Your task to perform on an android device: change keyboard looks Image 0: 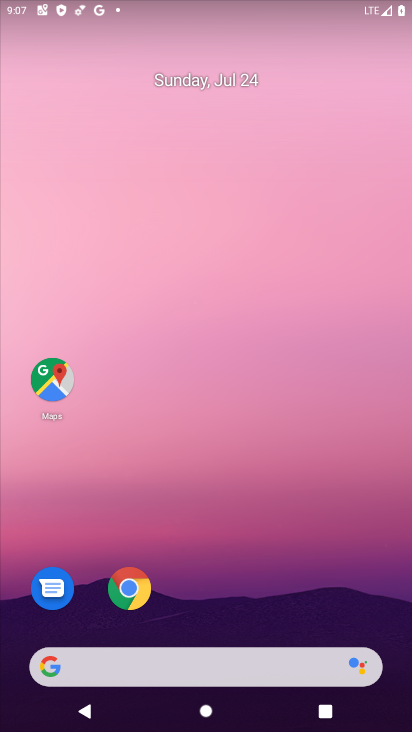
Step 0: drag from (197, 655) to (199, 43)
Your task to perform on an android device: change keyboard looks Image 1: 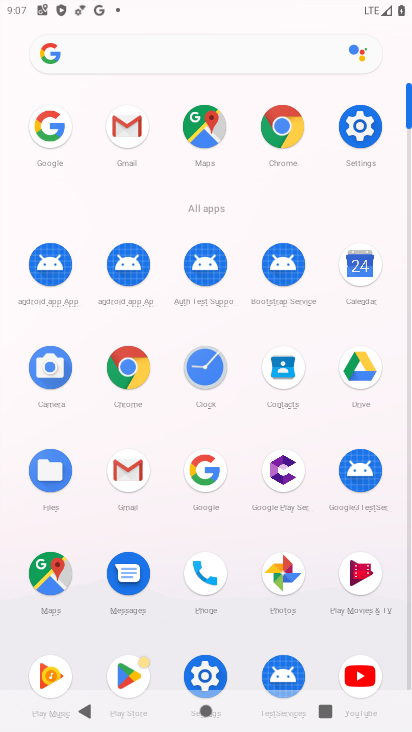
Step 1: click (367, 136)
Your task to perform on an android device: change keyboard looks Image 2: 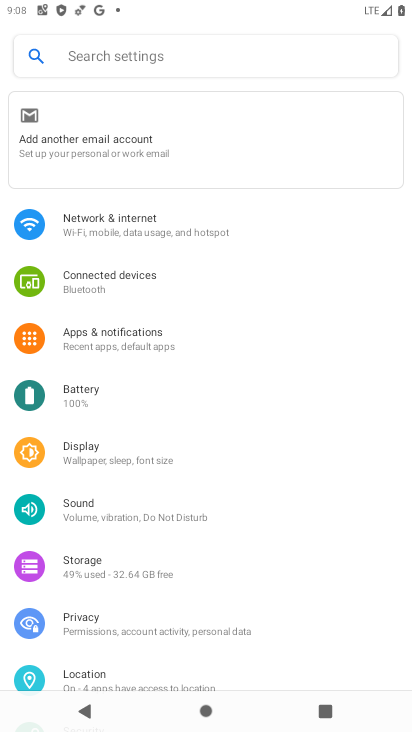
Step 2: drag from (125, 641) to (178, 135)
Your task to perform on an android device: change keyboard looks Image 3: 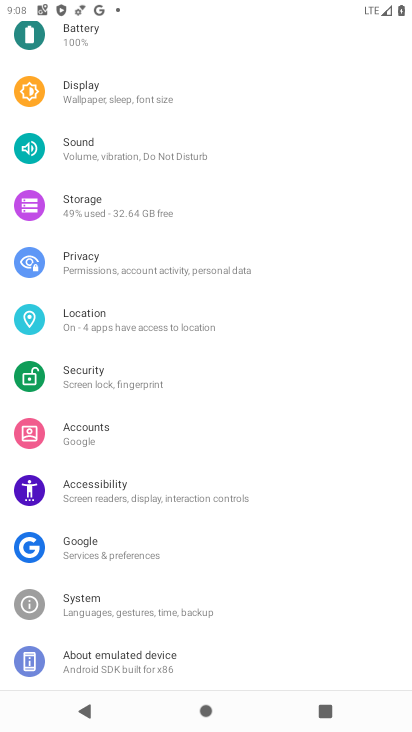
Step 3: click (81, 607)
Your task to perform on an android device: change keyboard looks Image 4: 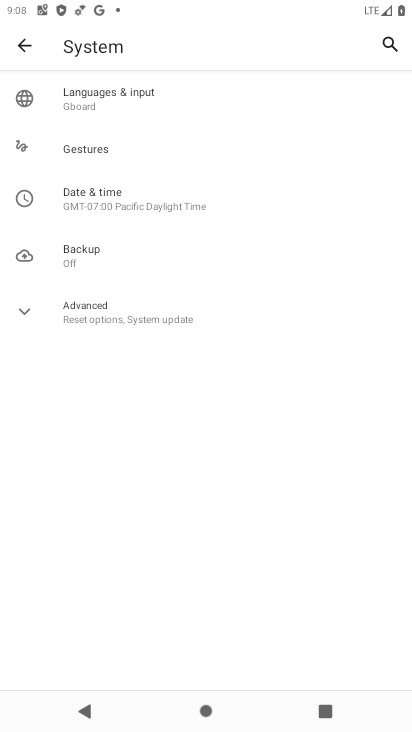
Step 4: click (70, 107)
Your task to perform on an android device: change keyboard looks Image 5: 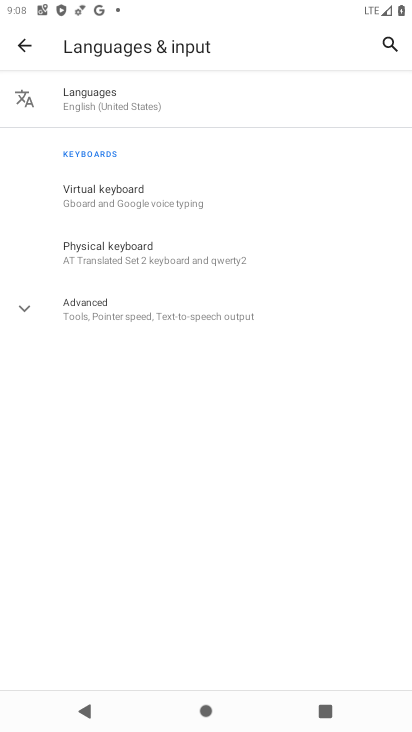
Step 5: click (117, 189)
Your task to perform on an android device: change keyboard looks Image 6: 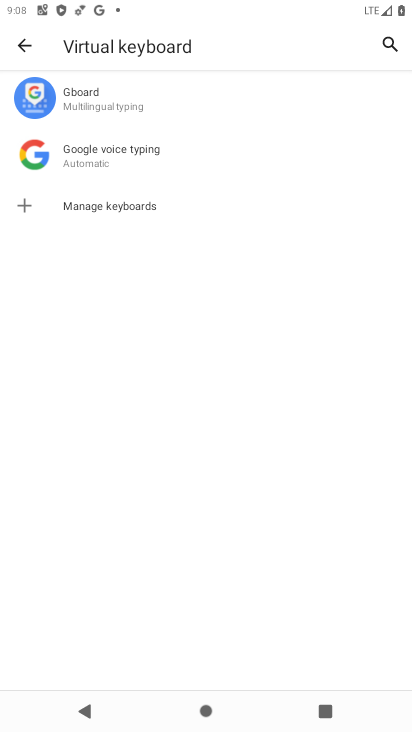
Step 6: click (148, 104)
Your task to perform on an android device: change keyboard looks Image 7: 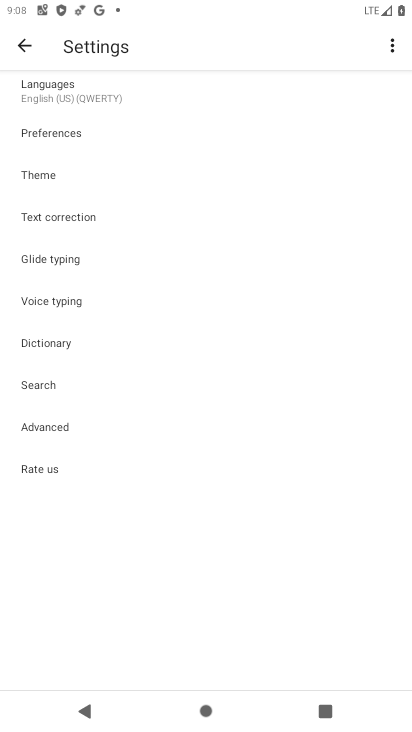
Step 7: click (39, 181)
Your task to perform on an android device: change keyboard looks Image 8: 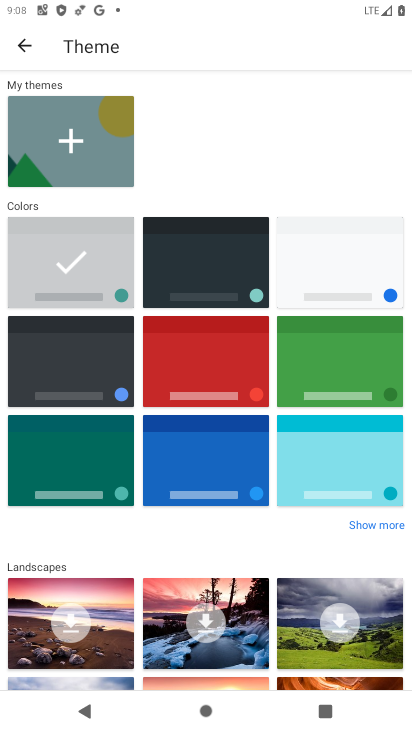
Step 8: click (244, 464)
Your task to perform on an android device: change keyboard looks Image 9: 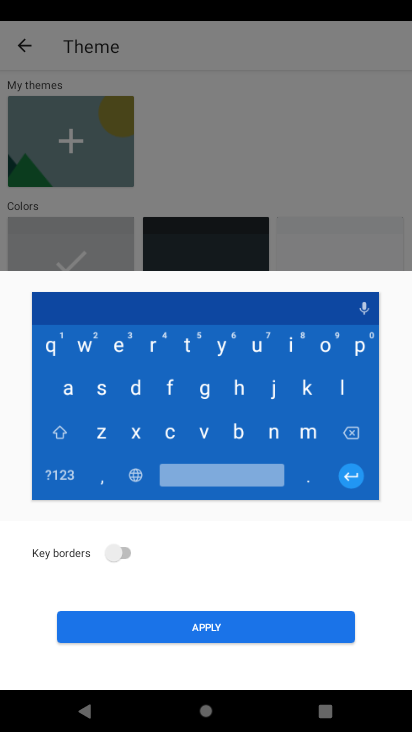
Step 9: click (214, 626)
Your task to perform on an android device: change keyboard looks Image 10: 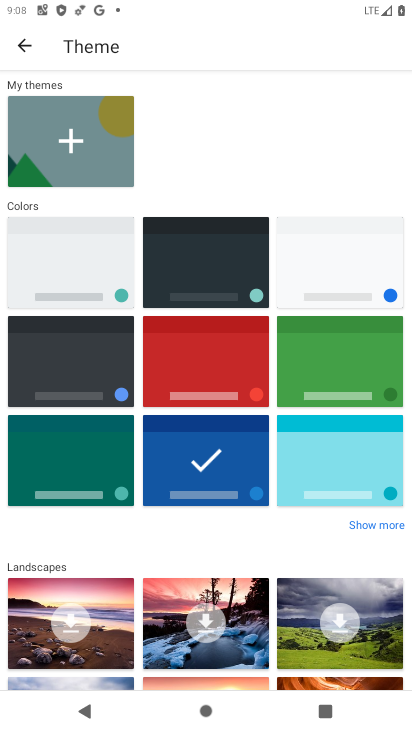
Step 10: task complete